Your task to perform on an android device: refresh tabs in the chrome app Image 0: 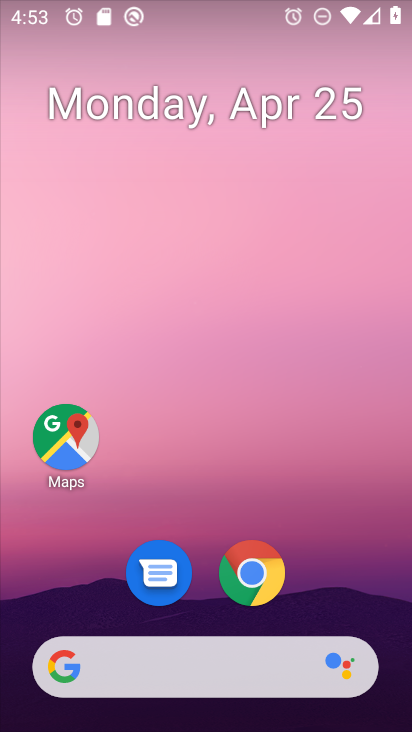
Step 0: click (261, 583)
Your task to perform on an android device: refresh tabs in the chrome app Image 1: 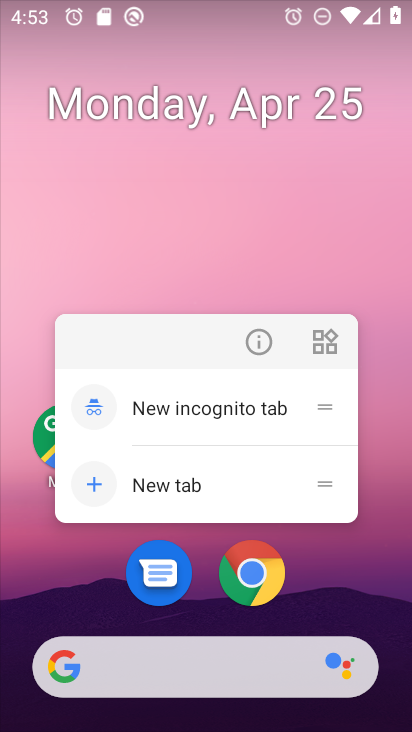
Step 1: click (248, 580)
Your task to perform on an android device: refresh tabs in the chrome app Image 2: 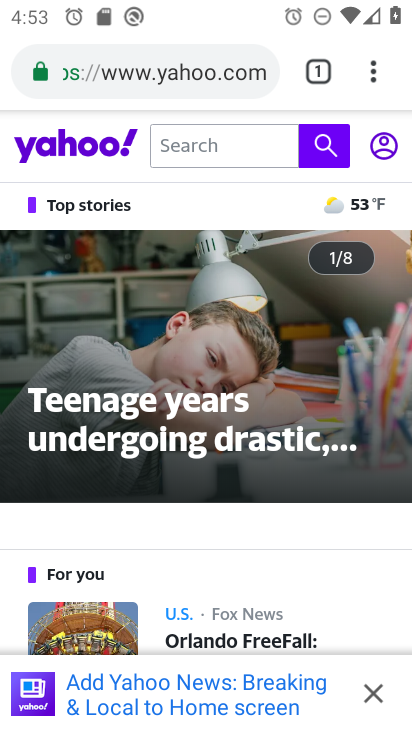
Step 2: click (372, 78)
Your task to perform on an android device: refresh tabs in the chrome app Image 3: 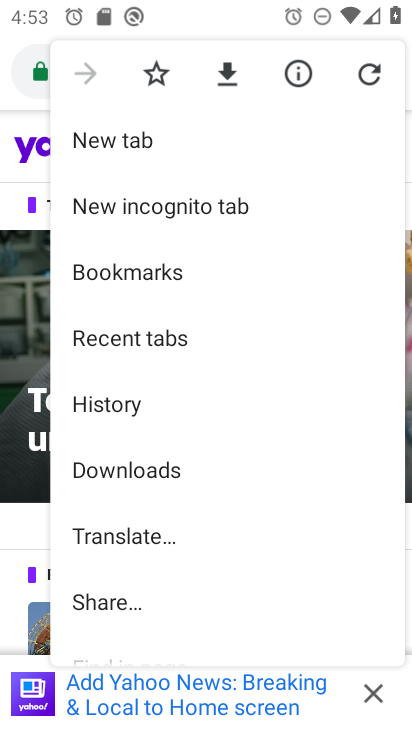
Step 3: click (355, 84)
Your task to perform on an android device: refresh tabs in the chrome app Image 4: 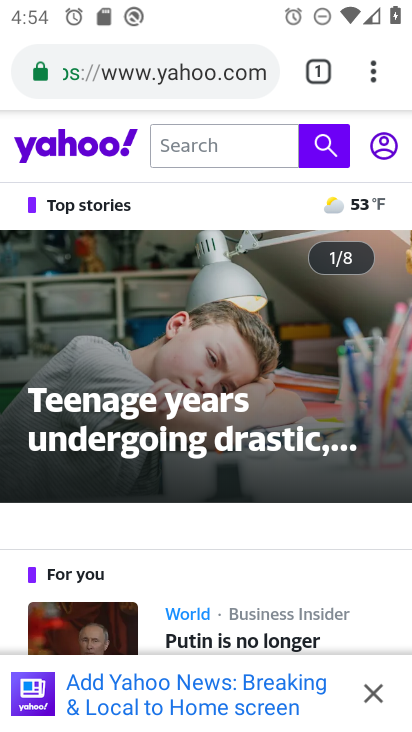
Step 4: press home button
Your task to perform on an android device: refresh tabs in the chrome app Image 5: 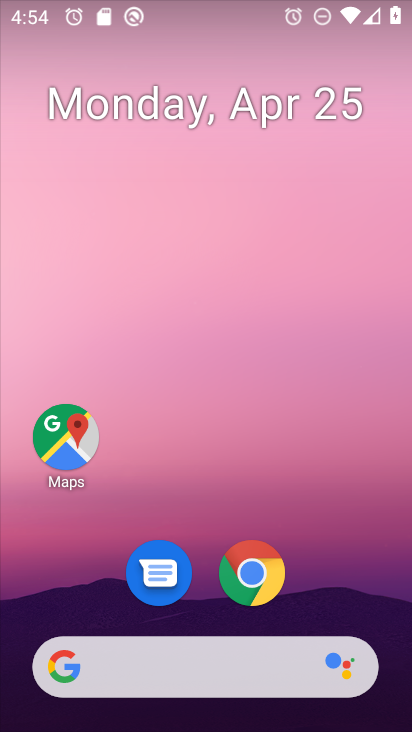
Step 5: click (257, 570)
Your task to perform on an android device: refresh tabs in the chrome app Image 6: 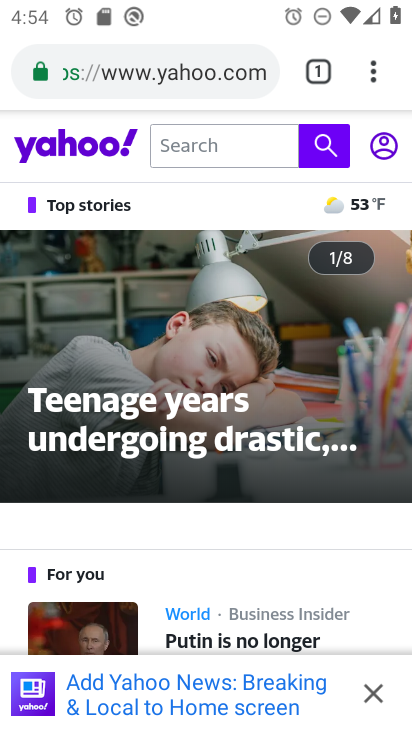
Step 6: click (373, 80)
Your task to perform on an android device: refresh tabs in the chrome app Image 7: 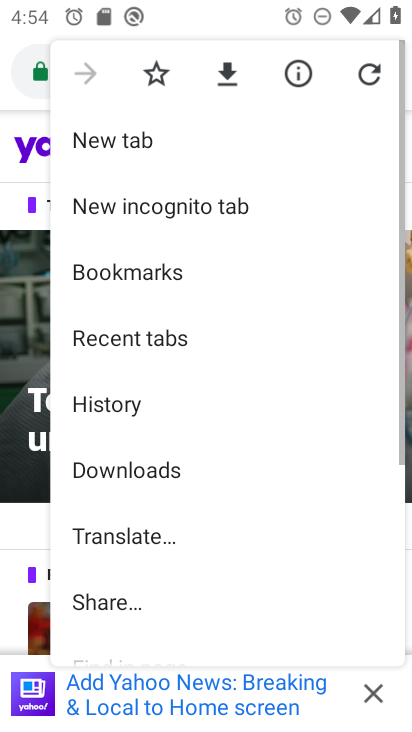
Step 7: click (375, 74)
Your task to perform on an android device: refresh tabs in the chrome app Image 8: 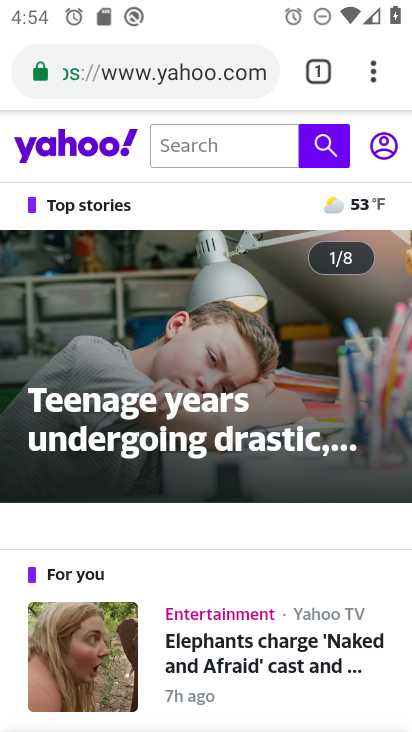
Step 8: task complete